Your task to perform on an android device: Go to Android settings Image 0: 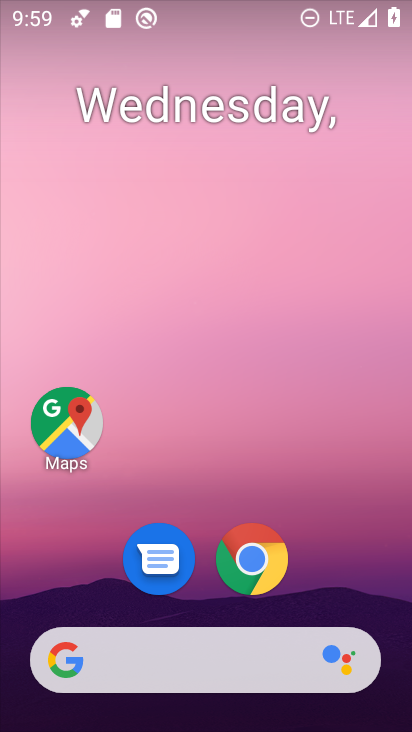
Step 0: drag from (305, 512) to (261, 8)
Your task to perform on an android device: Go to Android settings Image 1: 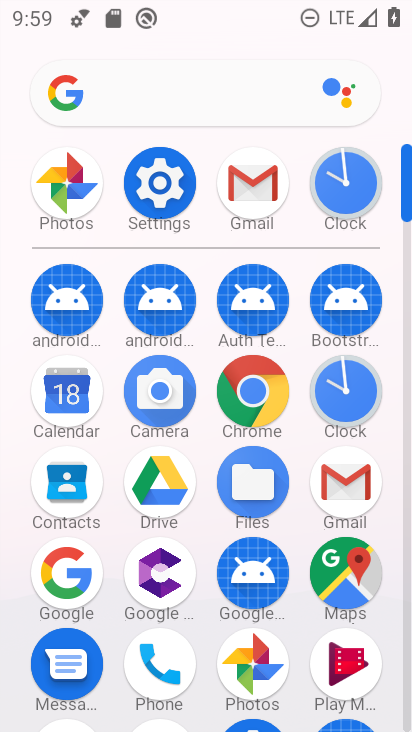
Step 1: click (144, 162)
Your task to perform on an android device: Go to Android settings Image 2: 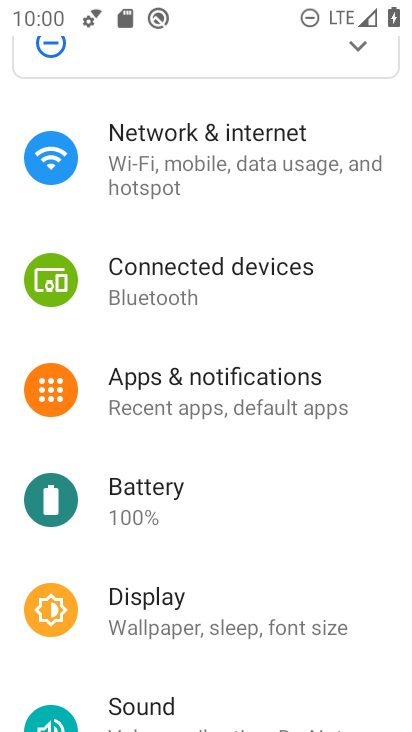
Step 2: drag from (234, 556) to (246, 156)
Your task to perform on an android device: Go to Android settings Image 3: 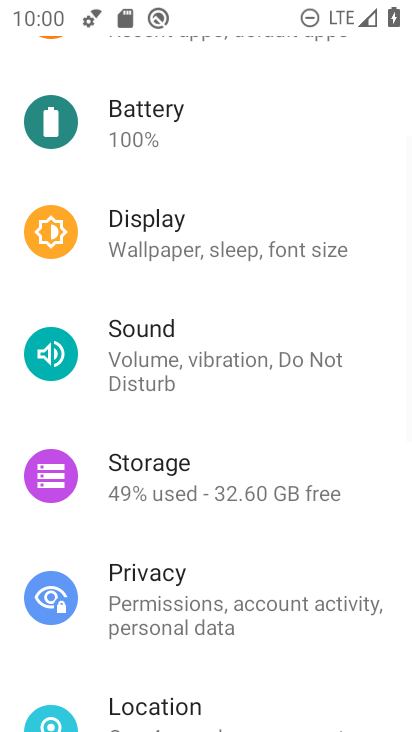
Step 3: drag from (264, 650) to (275, 197)
Your task to perform on an android device: Go to Android settings Image 4: 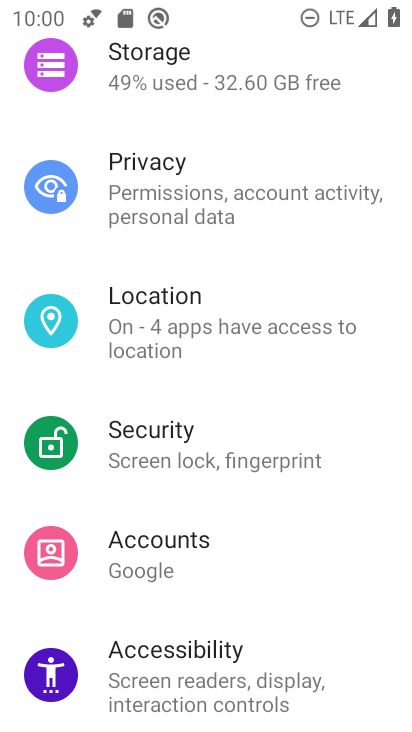
Step 4: drag from (259, 632) to (229, 153)
Your task to perform on an android device: Go to Android settings Image 5: 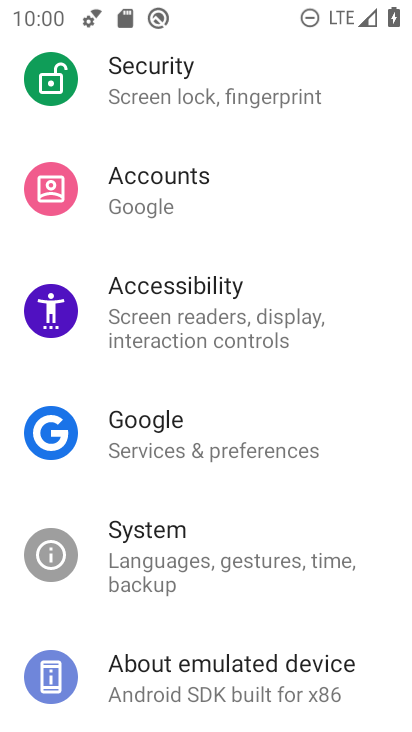
Step 5: drag from (225, 618) to (213, 357)
Your task to perform on an android device: Go to Android settings Image 6: 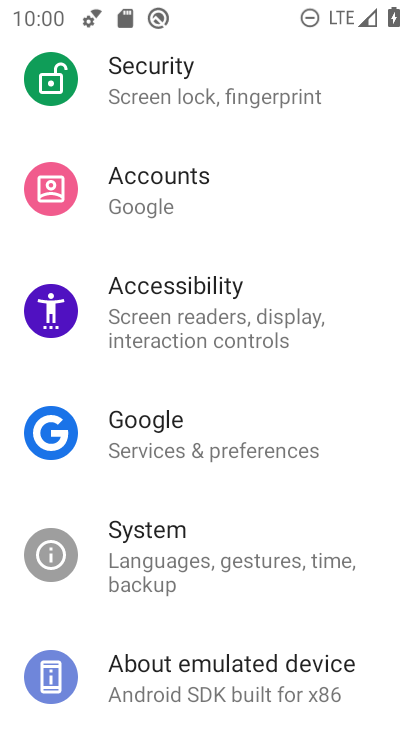
Step 6: click (223, 671)
Your task to perform on an android device: Go to Android settings Image 7: 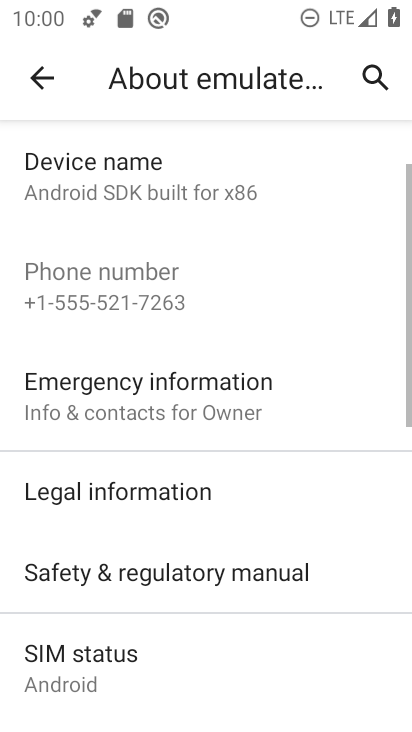
Step 7: task complete